Your task to perform on an android device: Set the phone to "Do not disturb". Image 0: 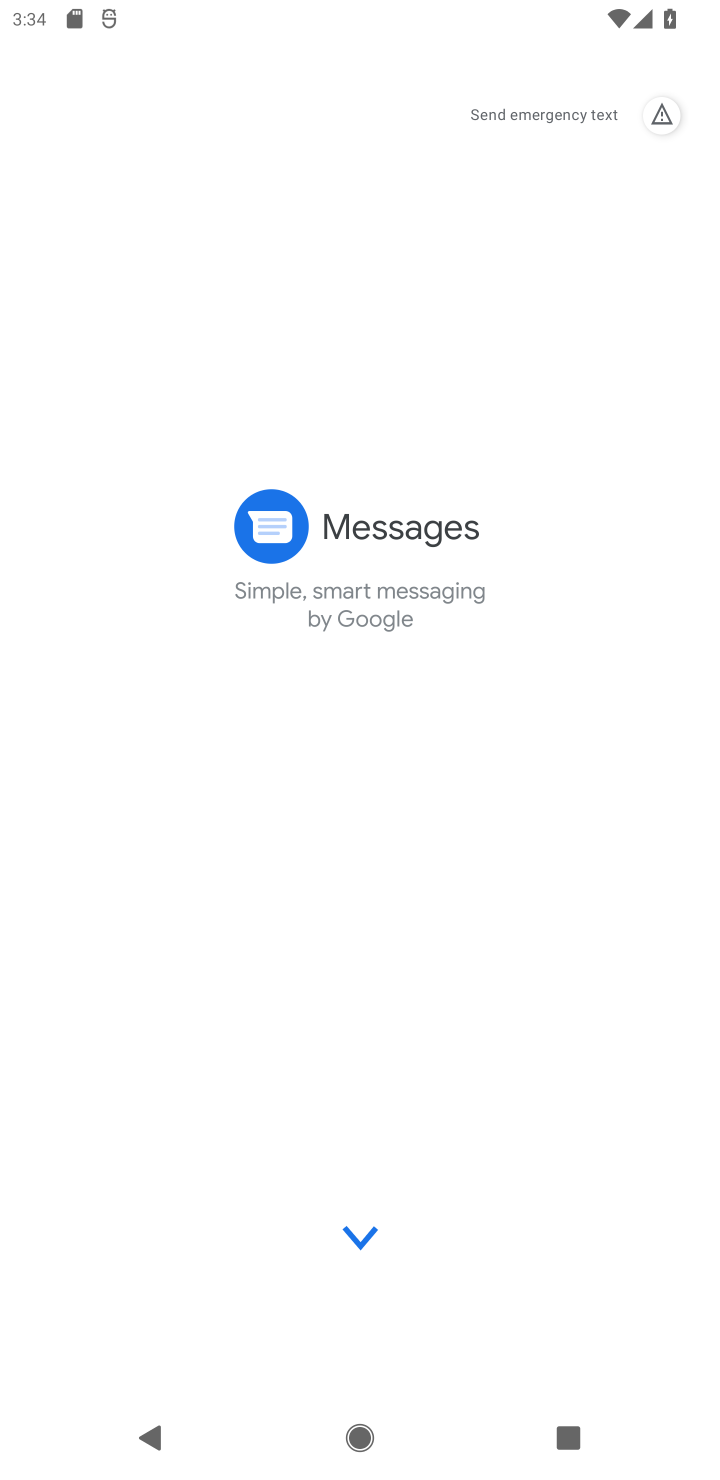
Step 0: press home button
Your task to perform on an android device: Set the phone to "Do not disturb". Image 1: 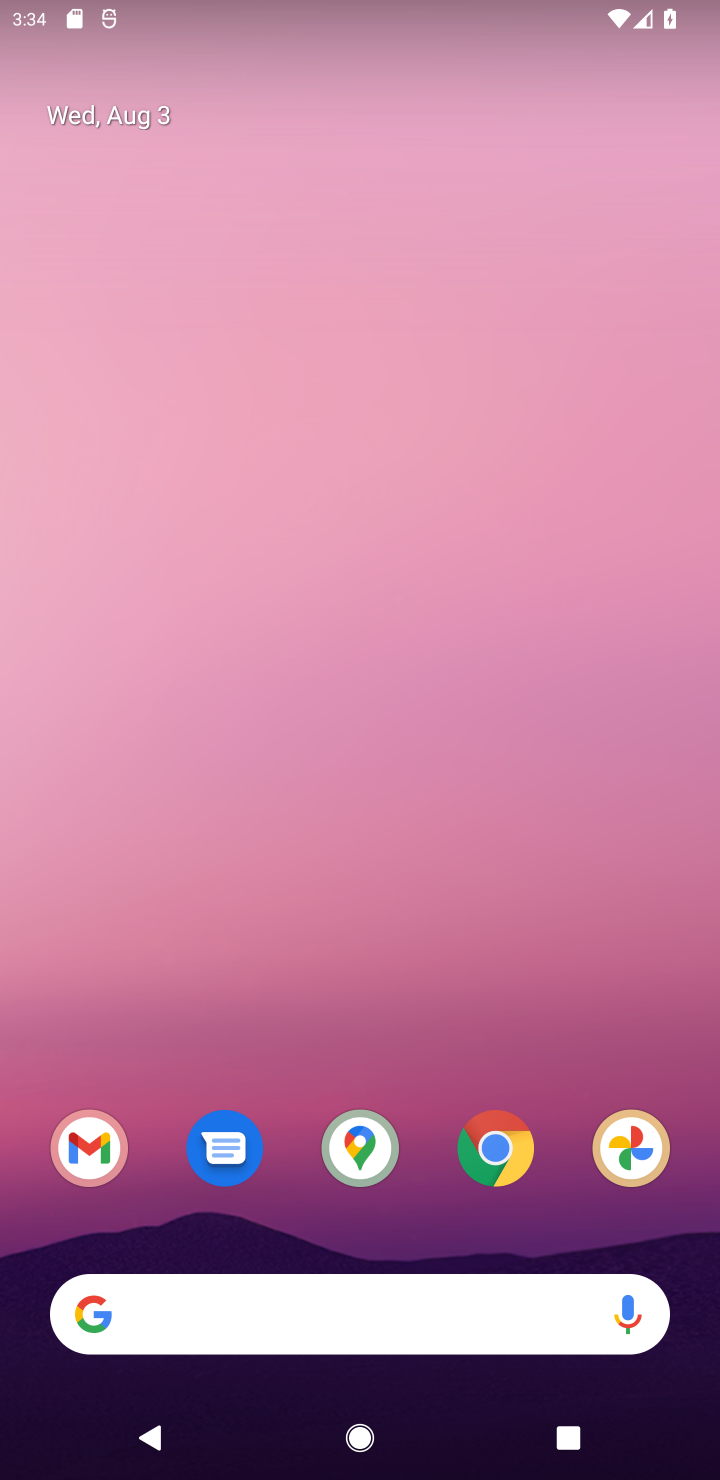
Step 1: drag from (574, 927) to (567, 115)
Your task to perform on an android device: Set the phone to "Do not disturb". Image 2: 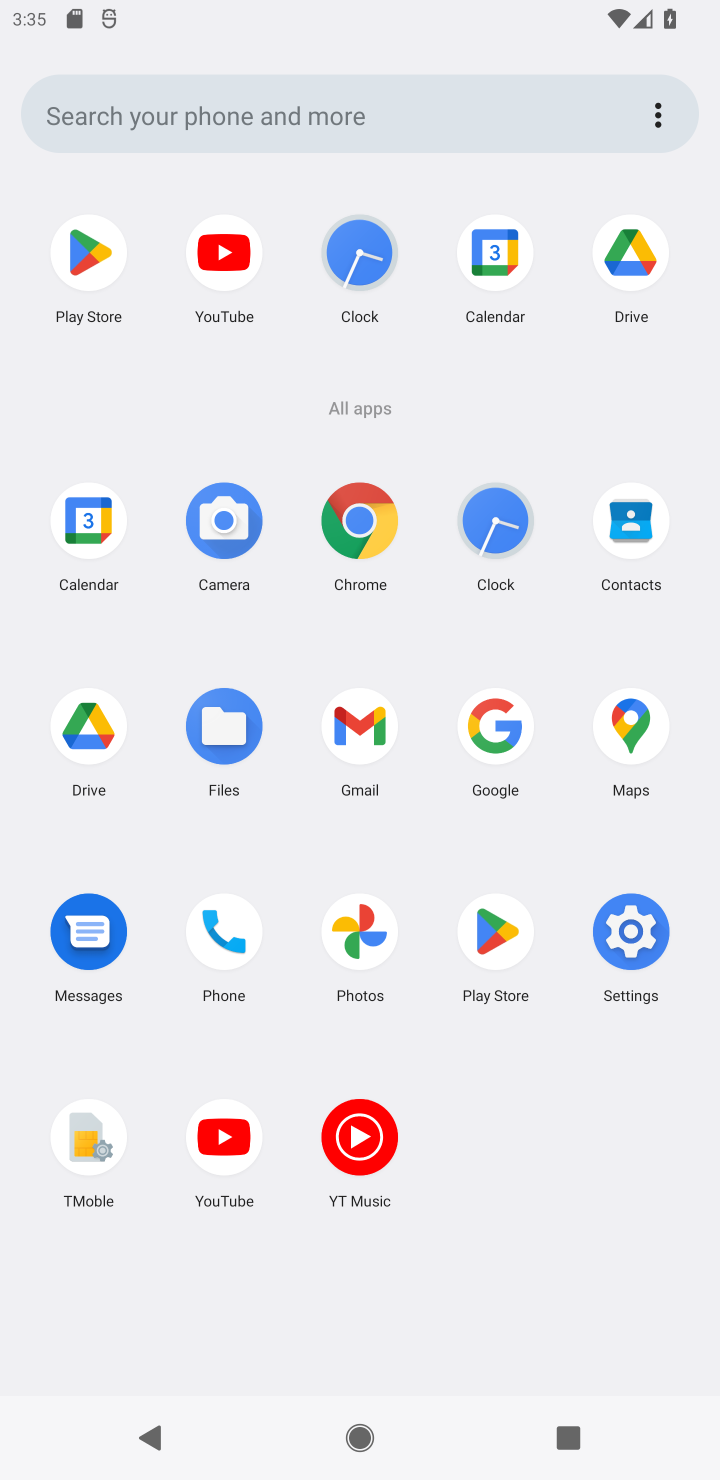
Step 2: click (636, 935)
Your task to perform on an android device: Set the phone to "Do not disturb". Image 3: 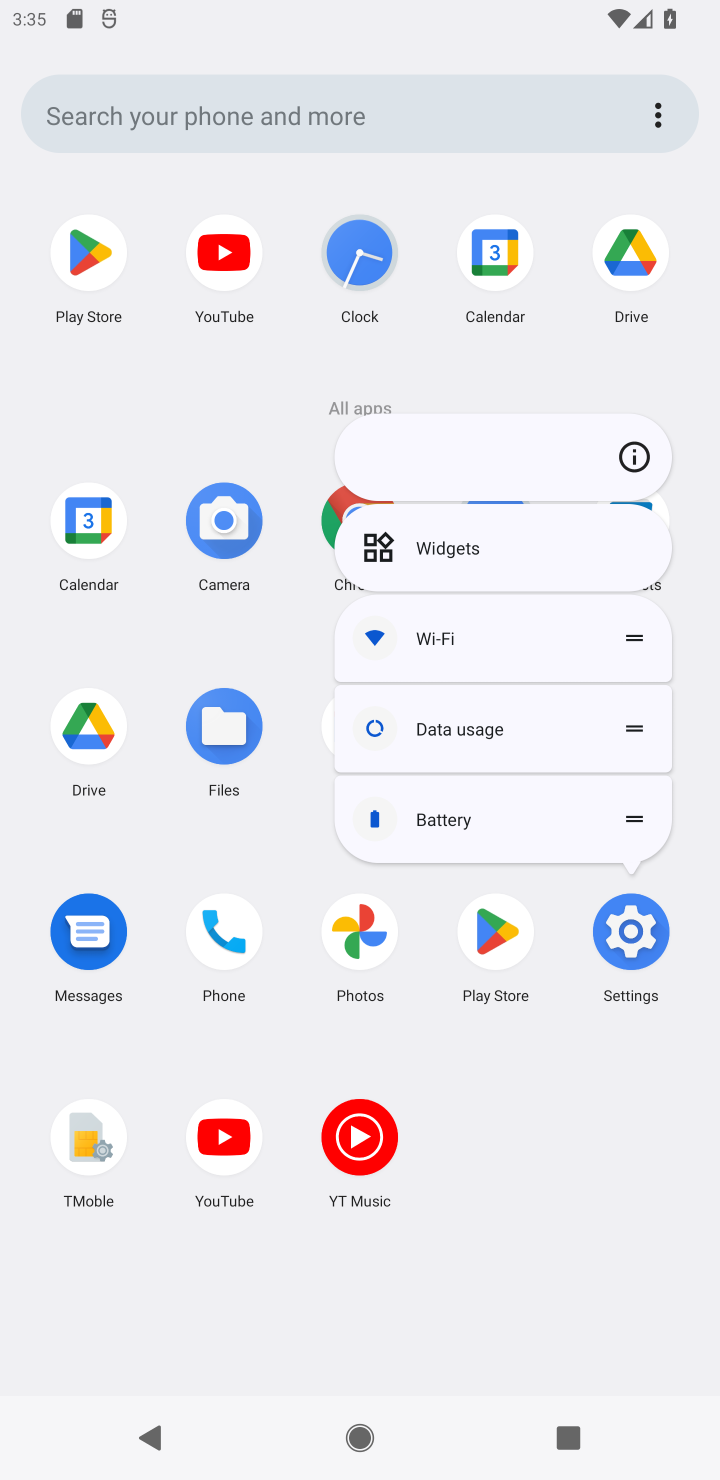
Step 3: click (641, 934)
Your task to perform on an android device: Set the phone to "Do not disturb". Image 4: 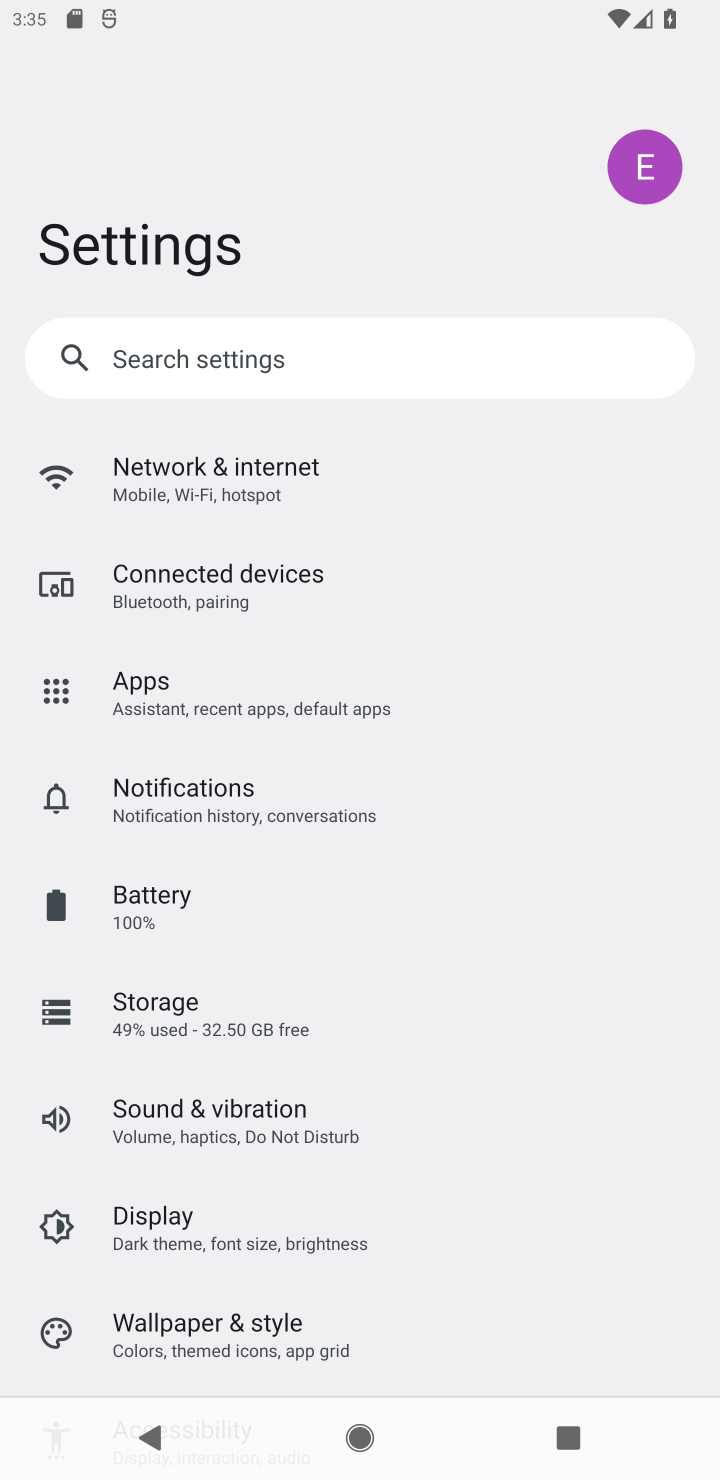
Step 4: drag from (559, 1194) to (587, 742)
Your task to perform on an android device: Set the phone to "Do not disturb". Image 5: 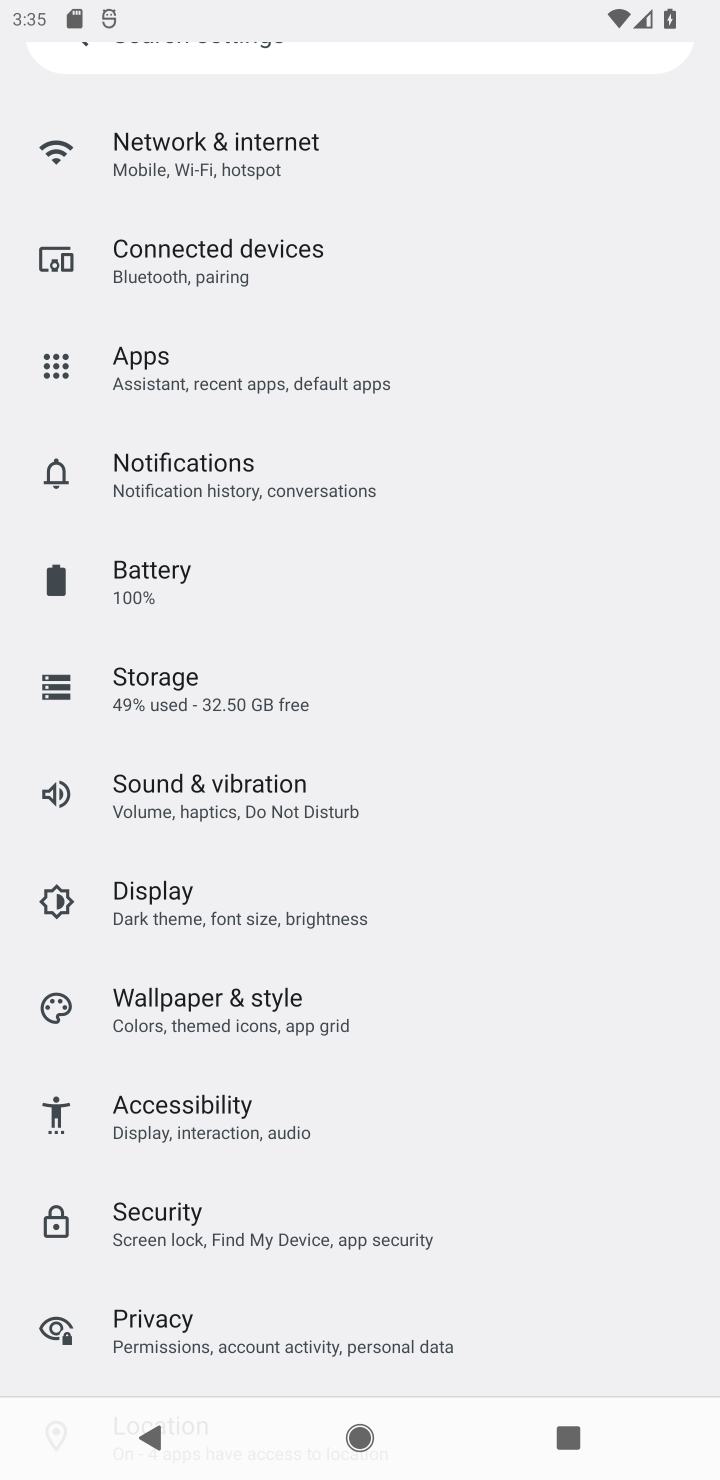
Step 5: drag from (596, 1240) to (631, 748)
Your task to perform on an android device: Set the phone to "Do not disturb". Image 6: 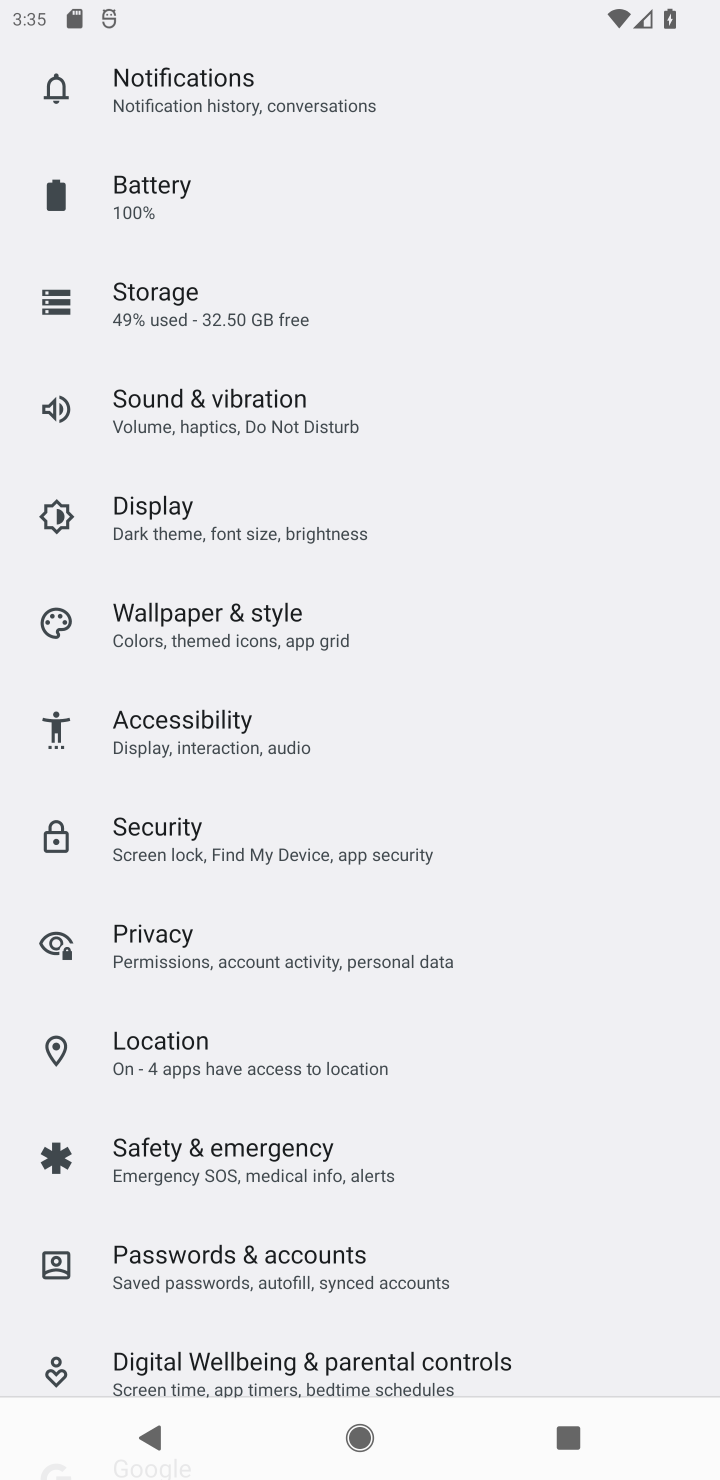
Step 6: drag from (556, 1165) to (592, 774)
Your task to perform on an android device: Set the phone to "Do not disturb". Image 7: 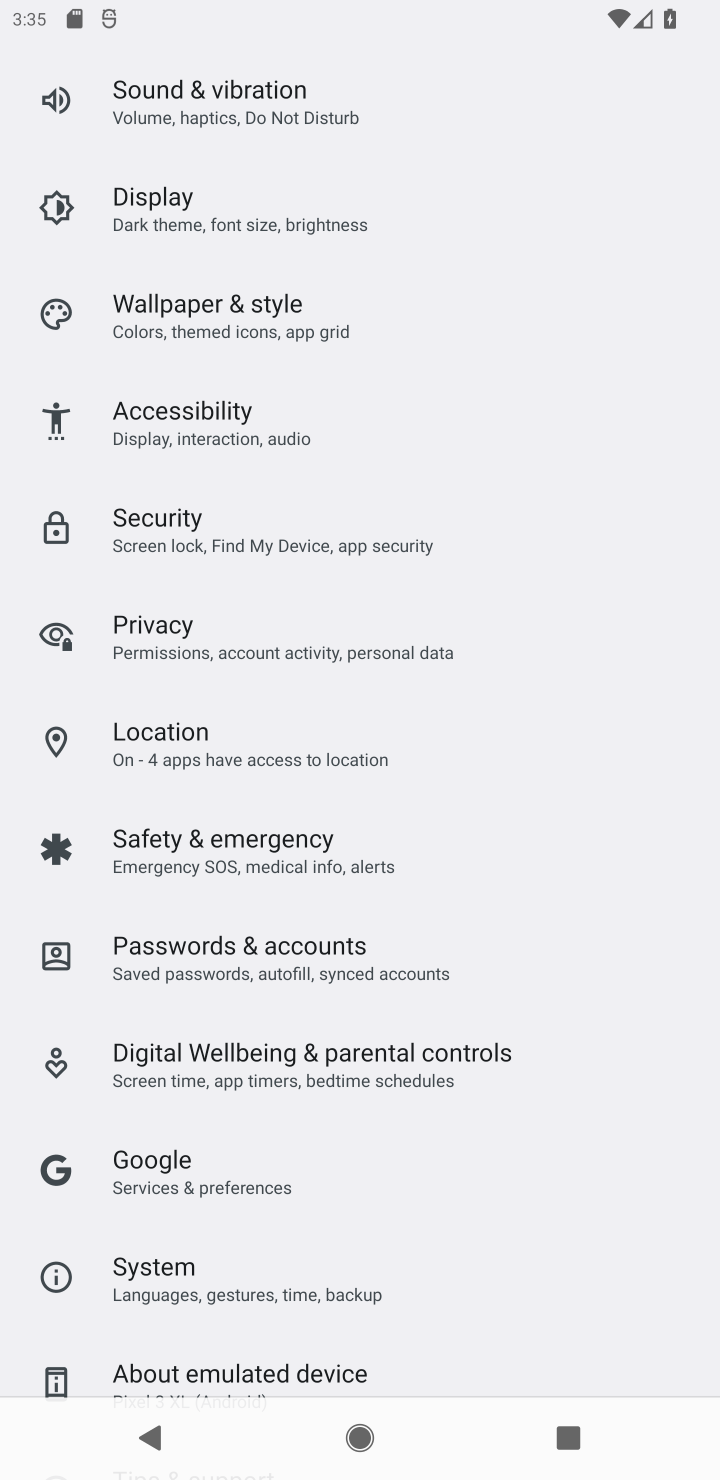
Step 7: drag from (584, 1228) to (617, 919)
Your task to perform on an android device: Set the phone to "Do not disturb". Image 8: 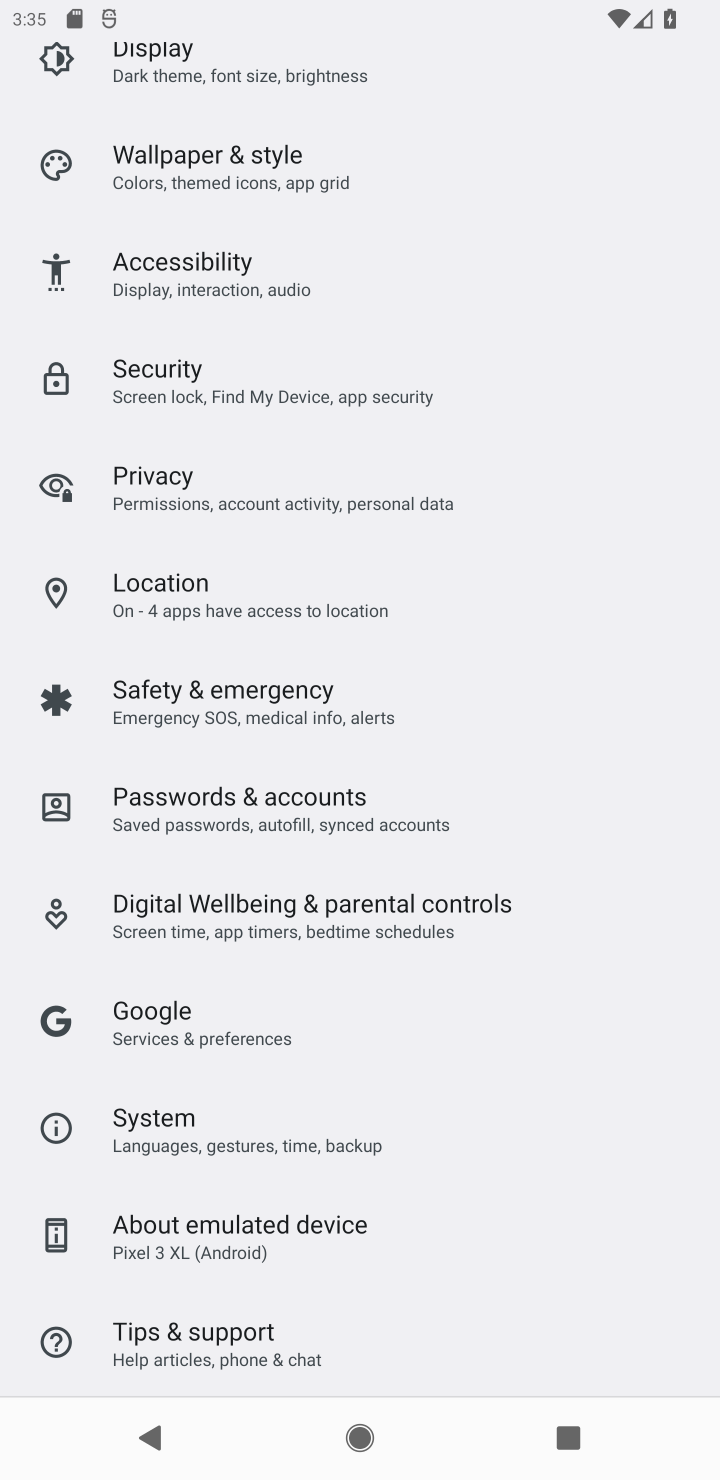
Step 8: drag from (522, 1257) to (591, 703)
Your task to perform on an android device: Set the phone to "Do not disturb". Image 9: 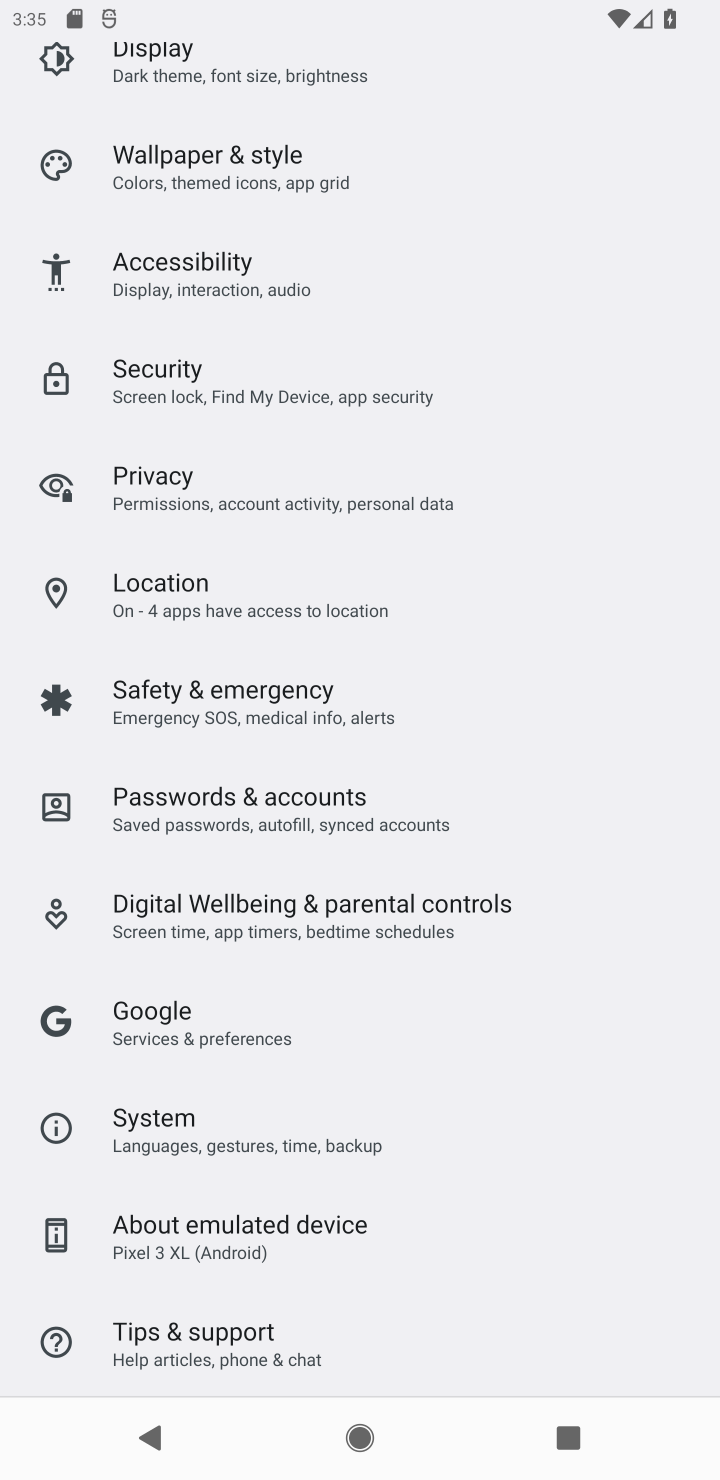
Step 9: drag from (591, 518) to (629, 1001)
Your task to perform on an android device: Set the phone to "Do not disturb". Image 10: 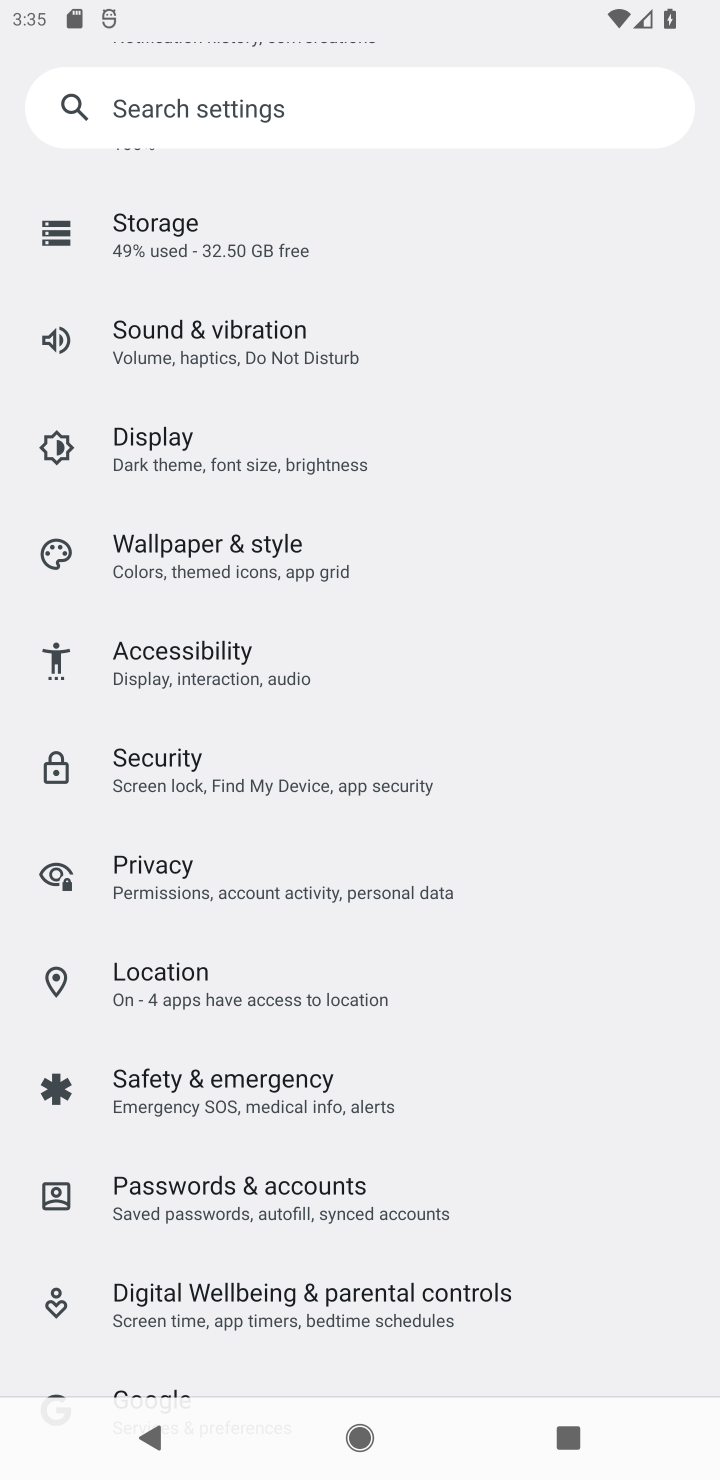
Step 10: drag from (570, 514) to (572, 887)
Your task to perform on an android device: Set the phone to "Do not disturb". Image 11: 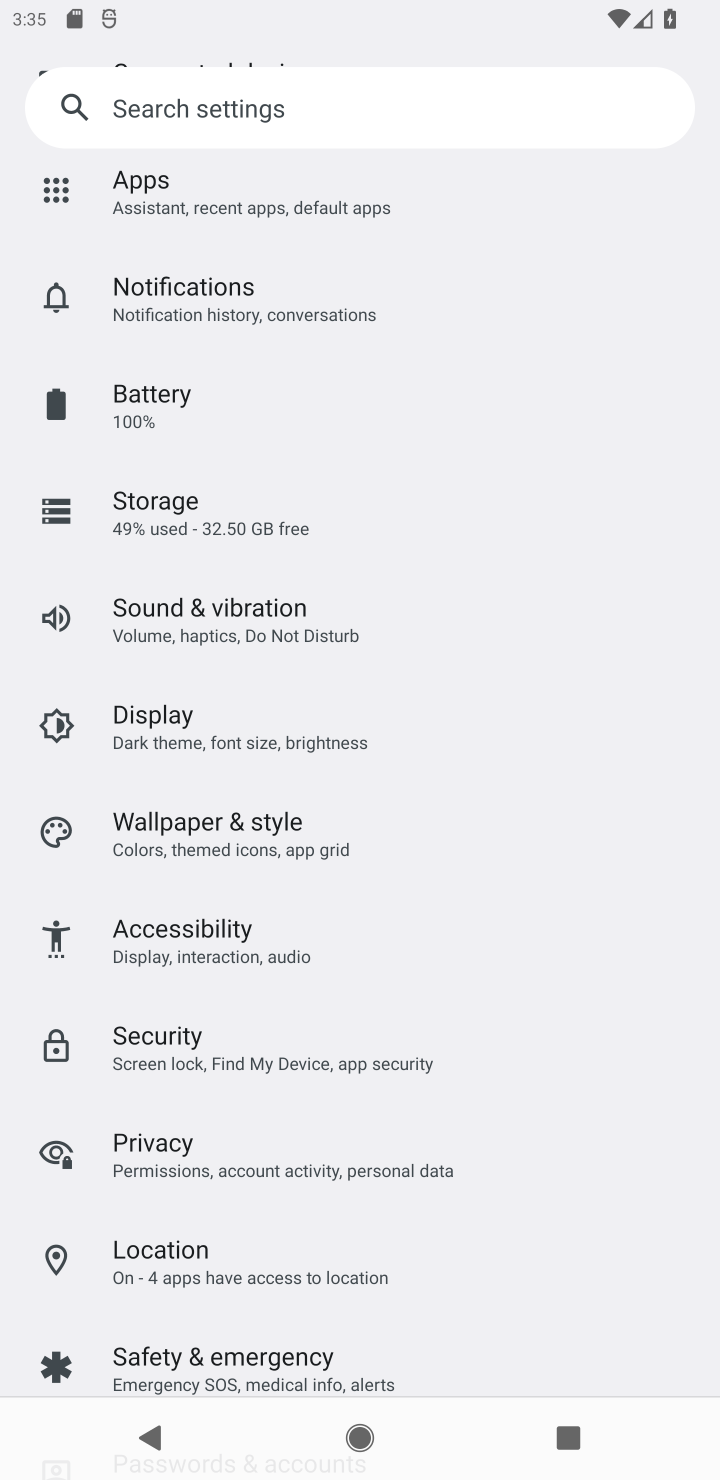
Step 11: click (328, 613)
Your task to perform on an android device: Set the phone to "Do not disturb". Image 12: 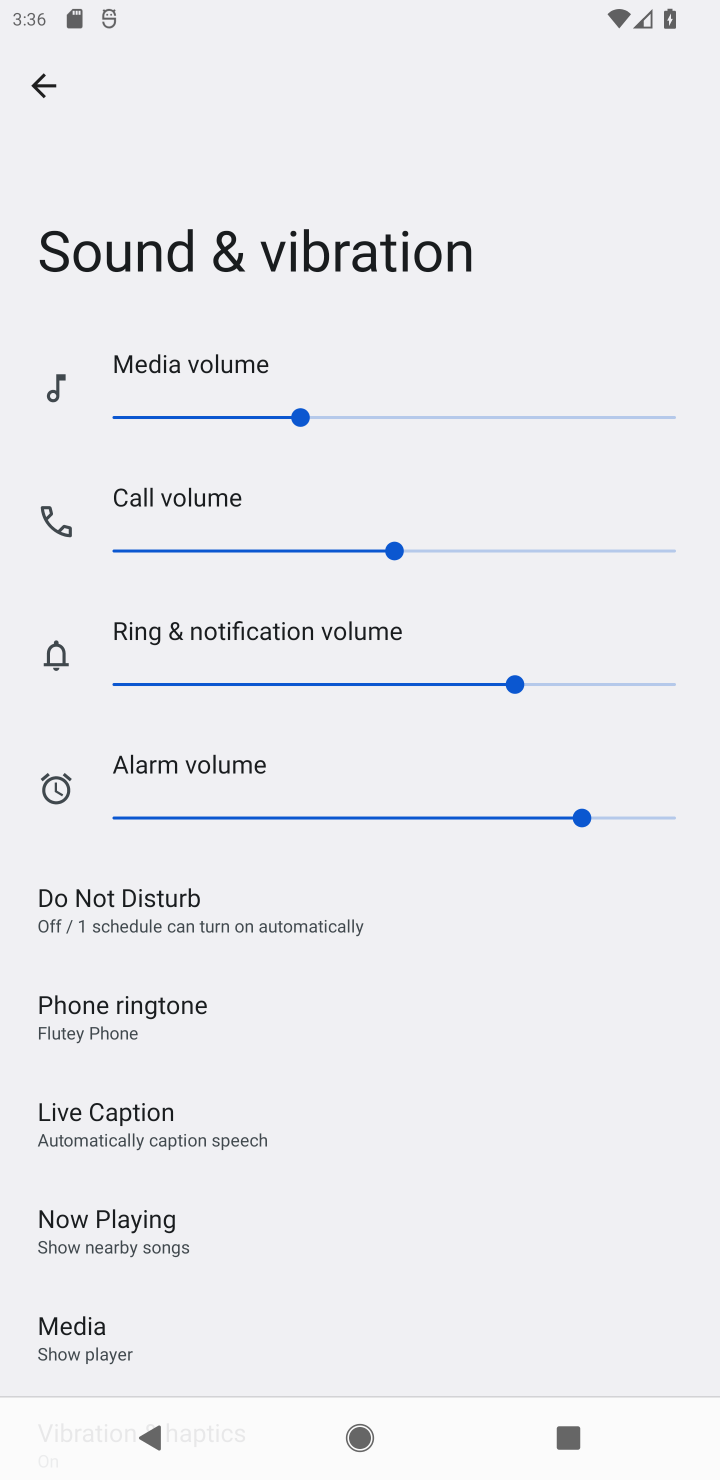
Step 12: click (353, 925)
Your task to perform on an android device: Set the phone to "Do not disturb". Image 13: 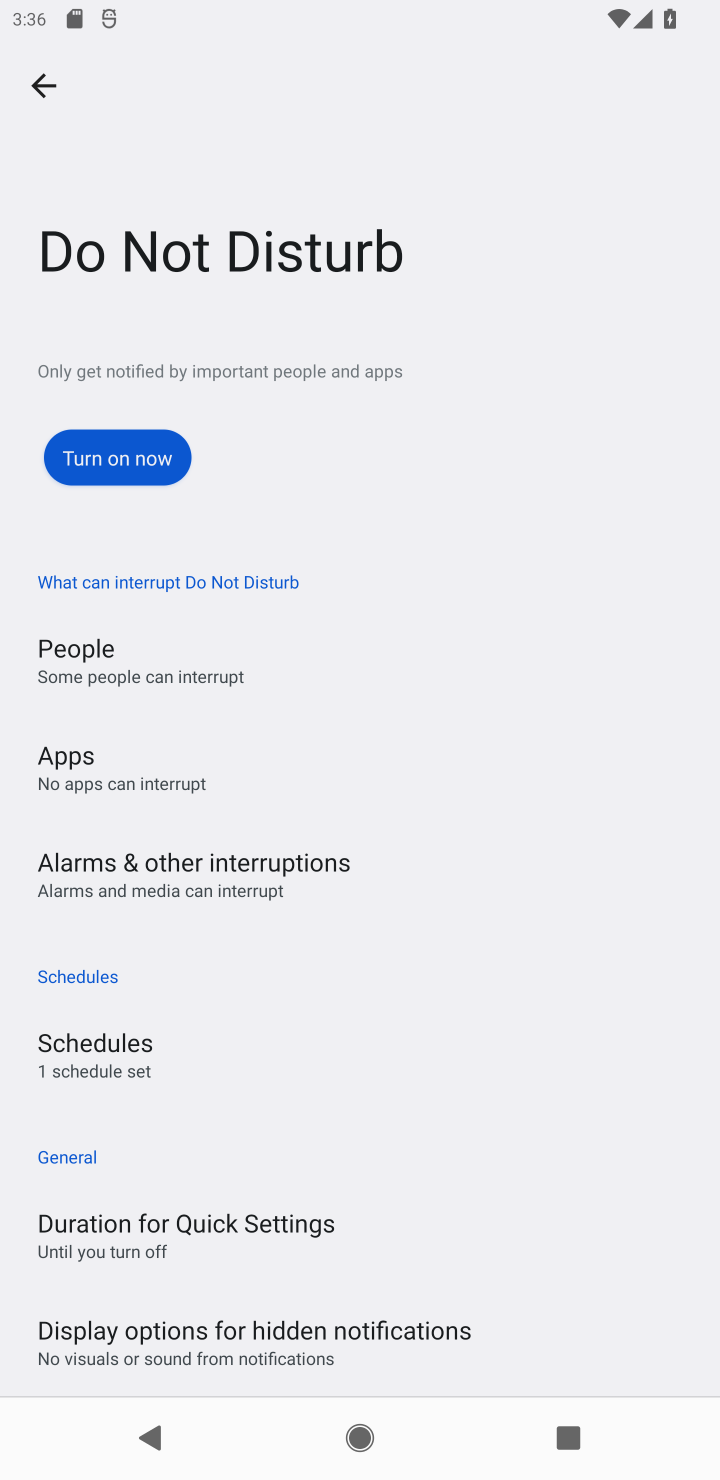
Step 13: click (116, 441)
Your task to perform on an android device: Set the phone to "Do not disturb". Image 14: 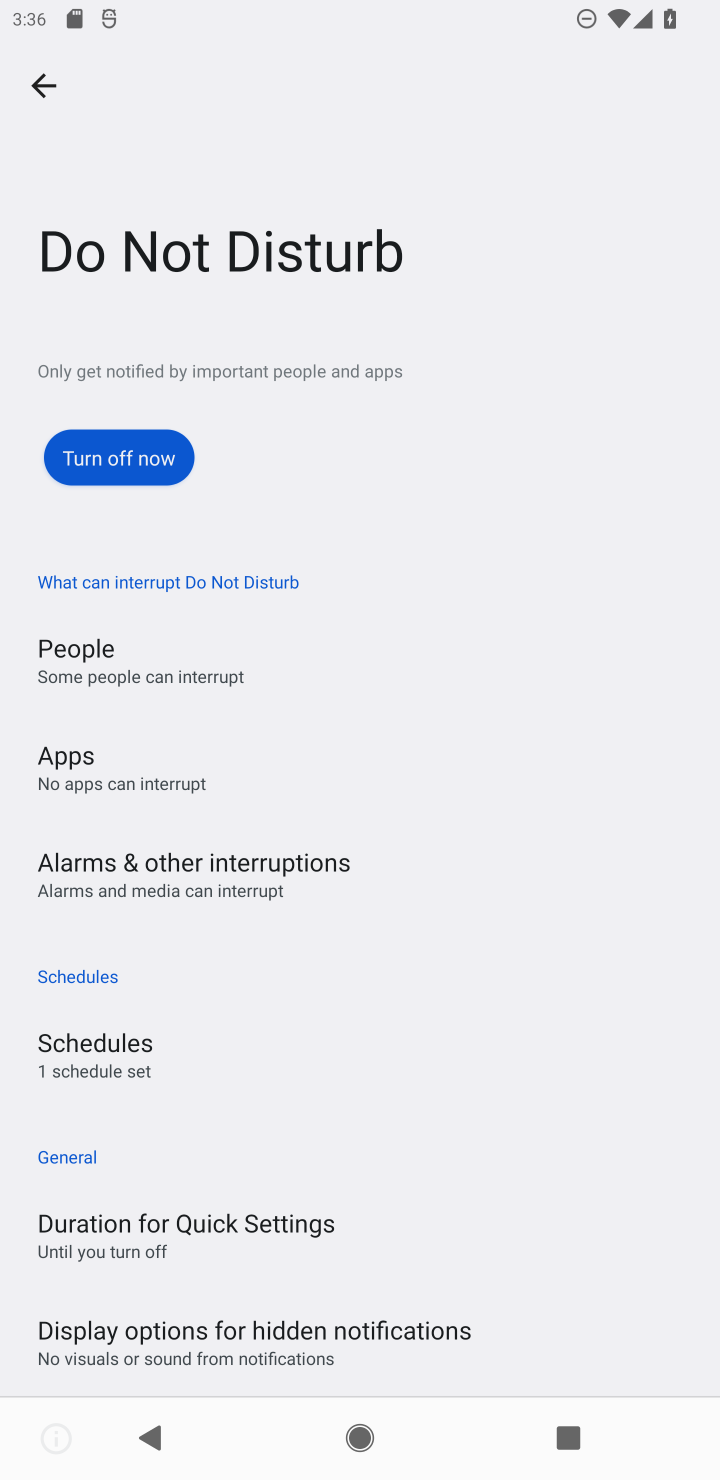
Step 14: task complete